Your task to perform on an android device: visit the assistant section in the google photos Image 0: 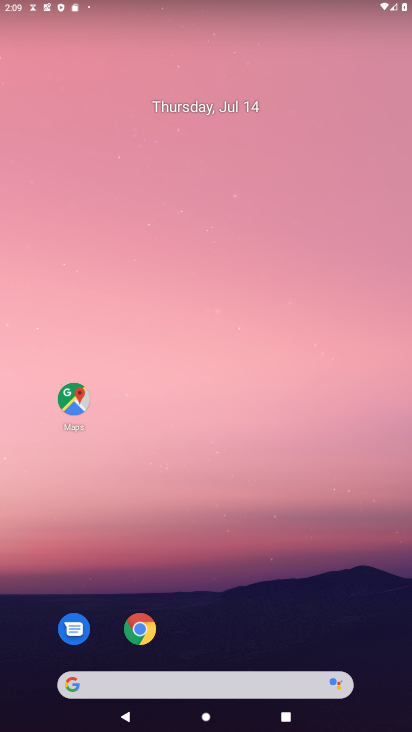
Step 0: drag from (216, 31) to (181, 398)
Your task to perform on an android device: visit the assistant section in the google photos Image 1: 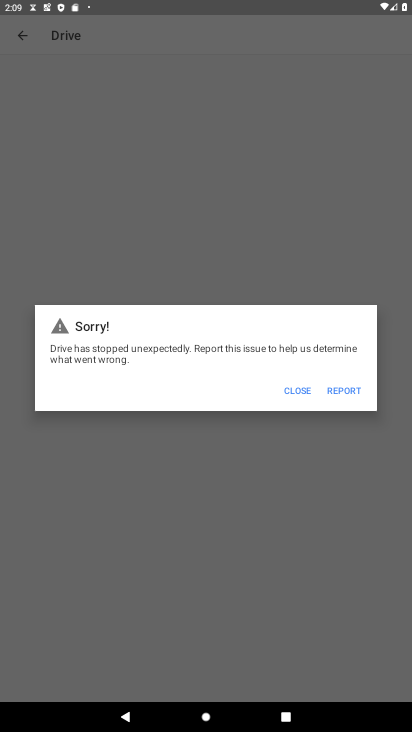
Step 1: press home button
Your task to perform on an android device: visit the assistant section in the google photos Image 2: 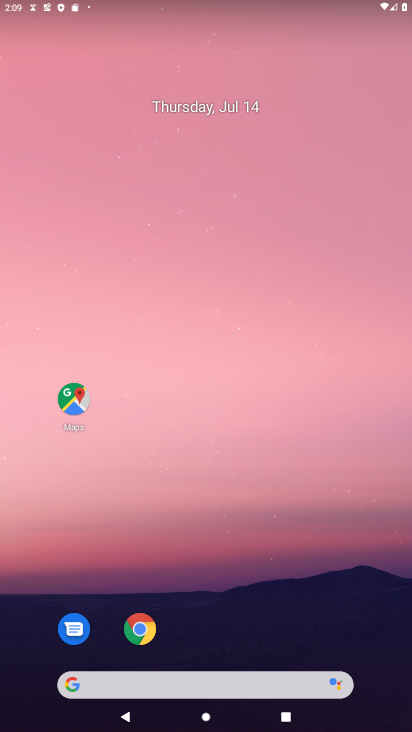
Step 2: drag from (201, 601) to (200, 61)
Your task to perform on an android device: visit the assistant section in the google photos Image 3: 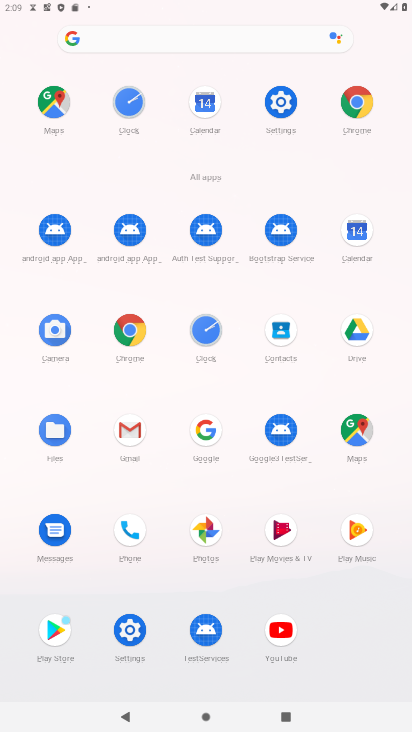
Step 3: click (209, 527)
Your task to perform on an android device: visit the assistant section in the google photos Image 4: 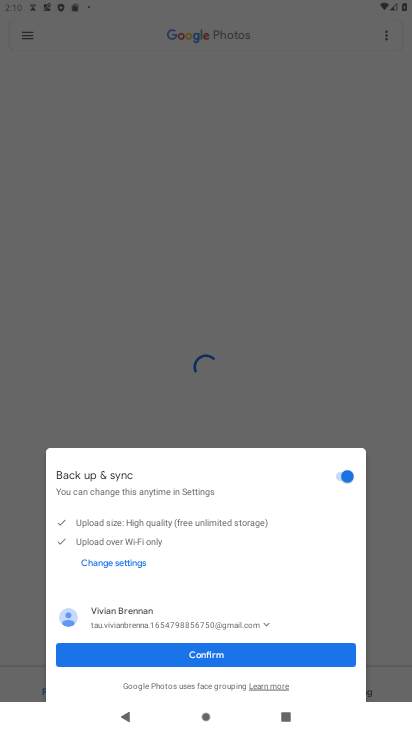
Step 4: click (257, 648)
Your task to perform on an android device: visit the assistant section in the google photos Image 5: 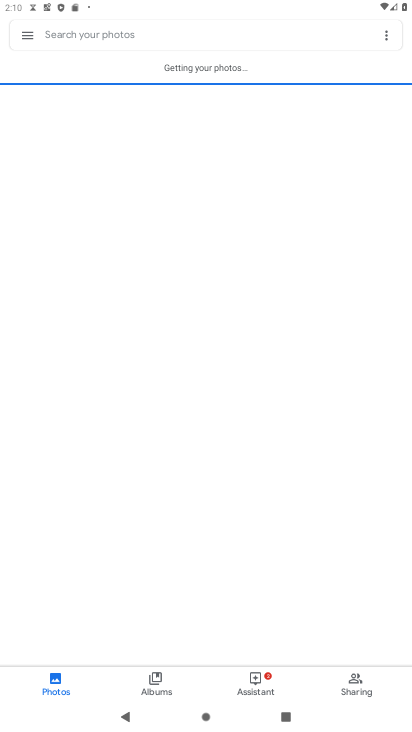
Step 5: click (265, 687)
Your task to perform on an android device: visit the assistant section in the google photos Image 6: 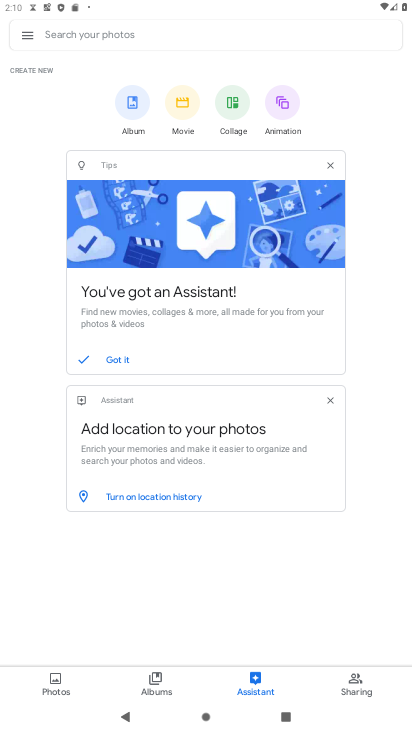
Step 6: task complete